Your task to perform on an android device: Go to Google Image 0: 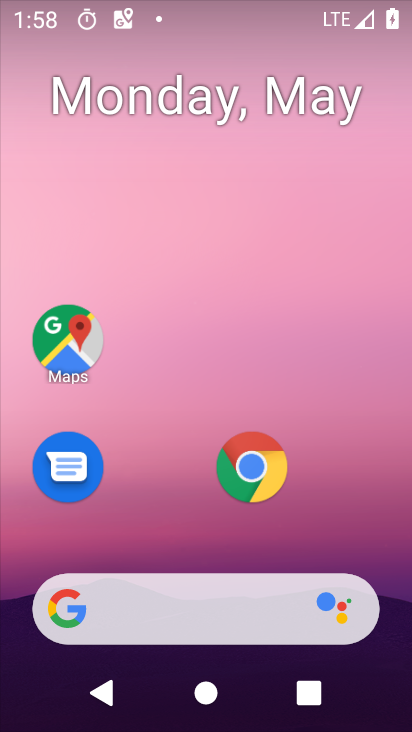
Step 0: drag from (220, 503) to (266, 199)
Your task to perform on an android device: Go to Google Image 1: 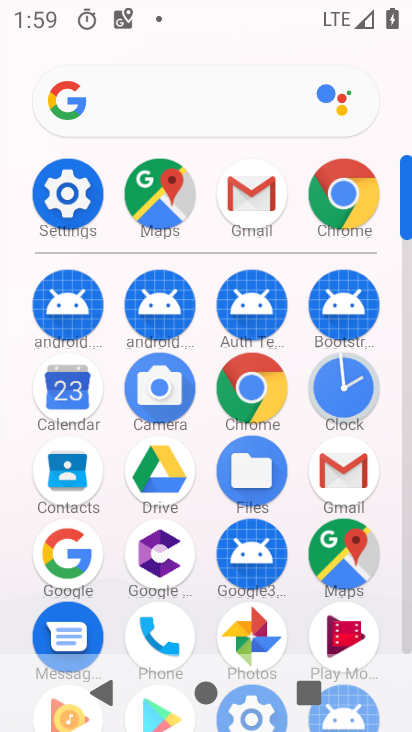
Step 1: click (64, 556)
Your task to perform on an android device: Go to Google Image 2: 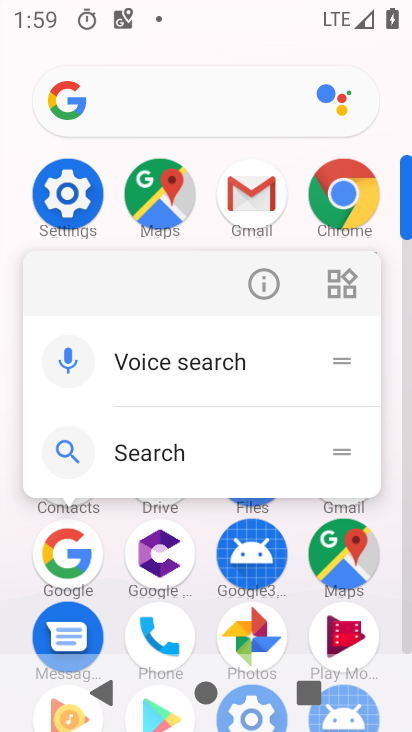
Step 2: click (260, 286)
Your task to perform on an android device: Go to Google Image 3: 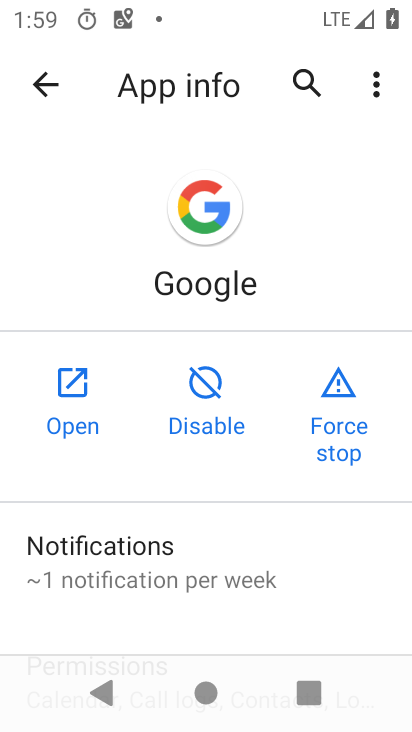
Step 3: click (74, 398)
Your task to perform on an android device: Go to Google Image 4: 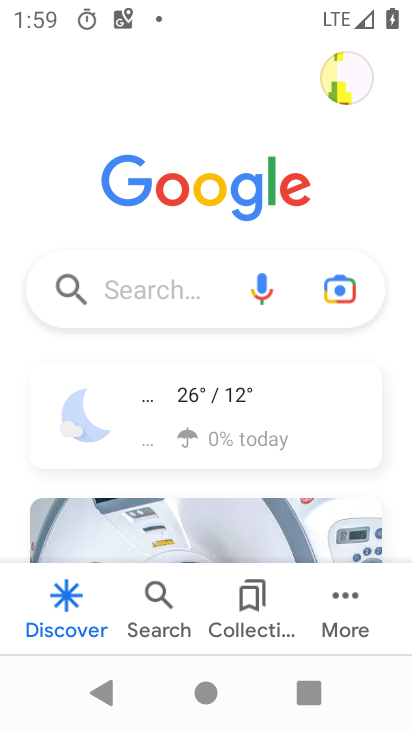
Step 4: task complete